Your task to perform on an android device: change alarm snooze length Image 0: 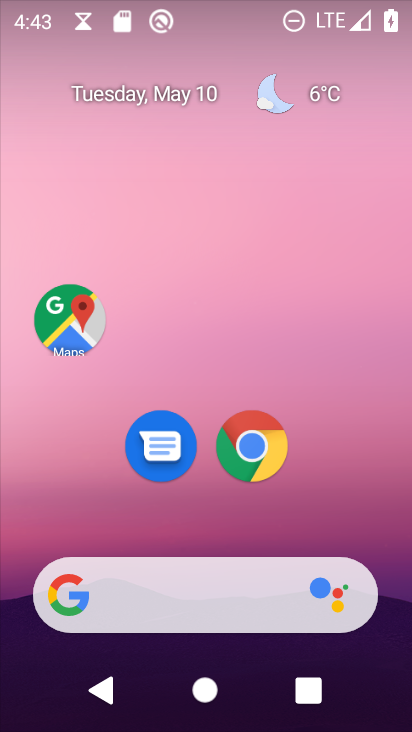
Step 0: drag from (317, 525) to (214, 90)
Your task to perform on an android device: change alarm snooze length Image 1: 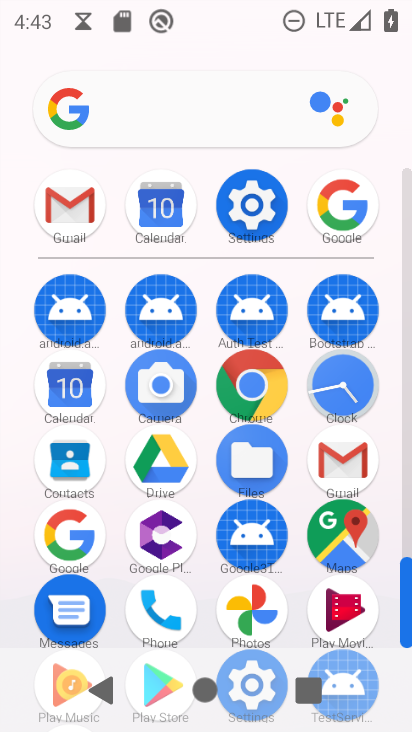
Step 1: click (346, 402)
Your task to perform on an android device: change alarm snooze length Image 2: 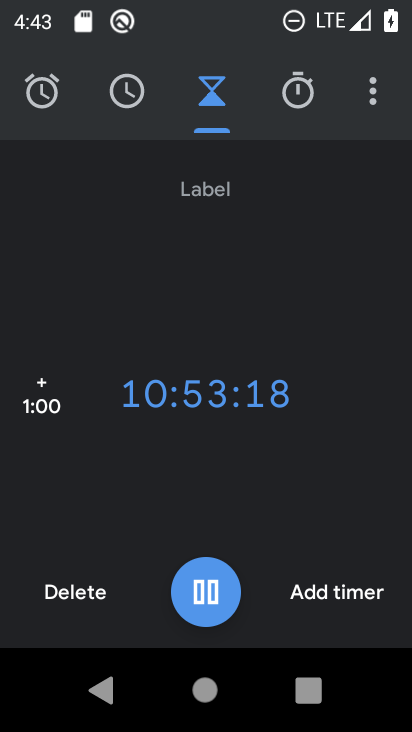
Step 2: click (381, 86)
Your task to perform on an android device: change alarm snooze length Image 3: 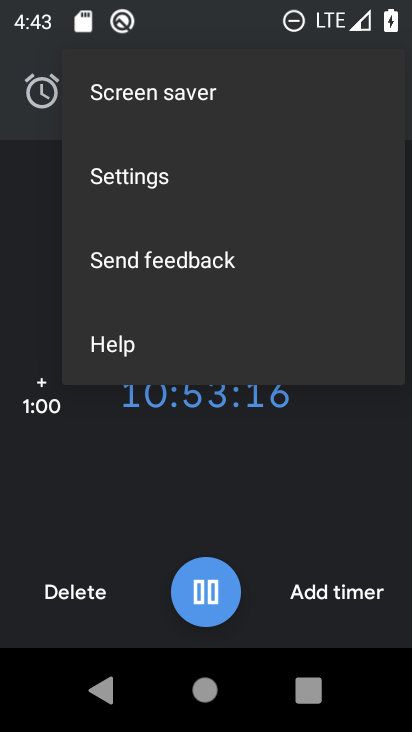
Step 3: click (165, 178)
Your task to perform on an android device: change alarm snooze length Image 4: 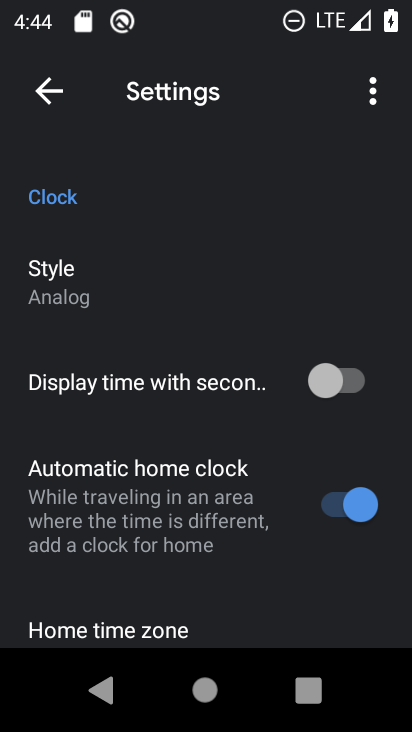
Step 4: drag from (148, 522) to (154, 143)
Your task to perform on an android device: change alarm snooze length Image 5: 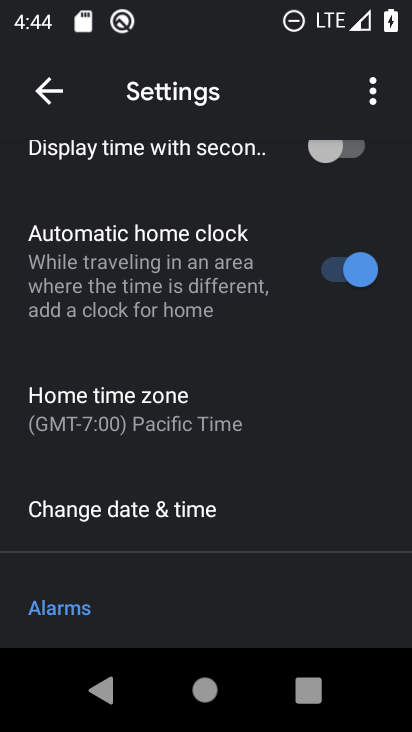
Step 5: drag from (198, 511) to (234, 100)
Your task to perform on an android device: change alarm snooze length Image 6: 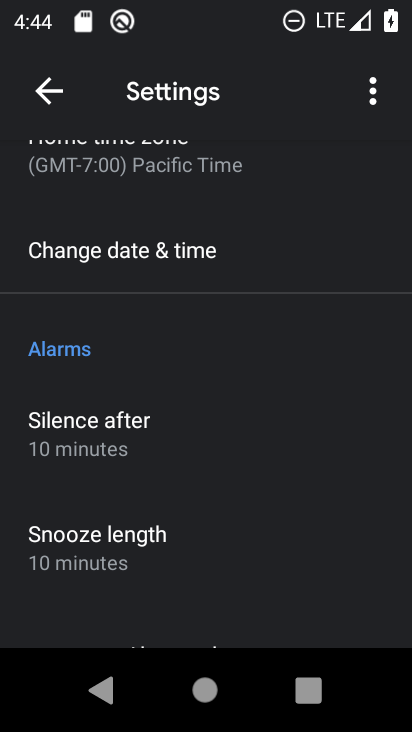
Step 6: click (189, 520)
Your task to perform on an android device: change alarm snooze length Image 7: 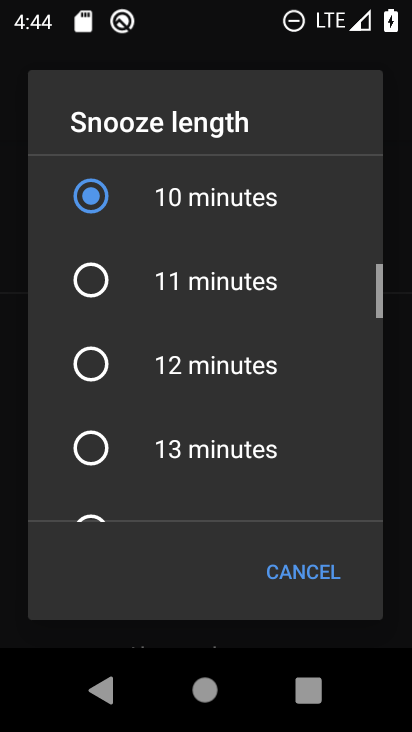
Step 7: click (231, 406)
Your task to perform on an android device: change alarm snooze length Image 8: 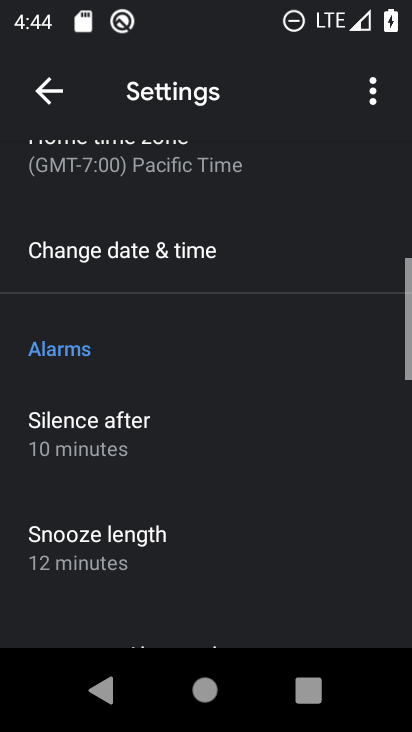
Step 8: task complete